Your task to perform on an android device: Show me recent news Image 0: 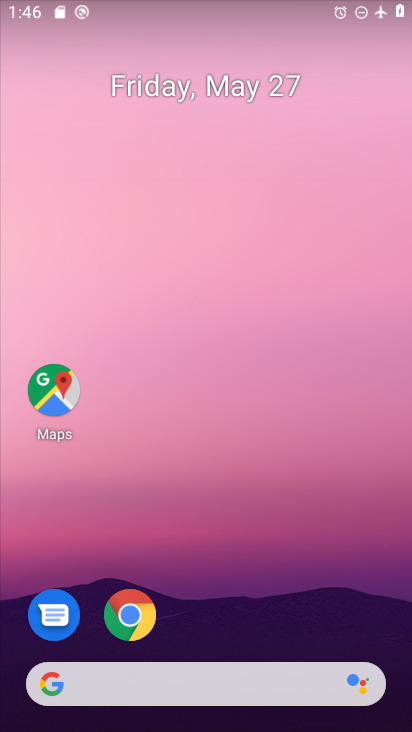
Step 0: drag from (333, 597) to (312, 49)
Your task to perform on an android device: Show me recent news Image 1: 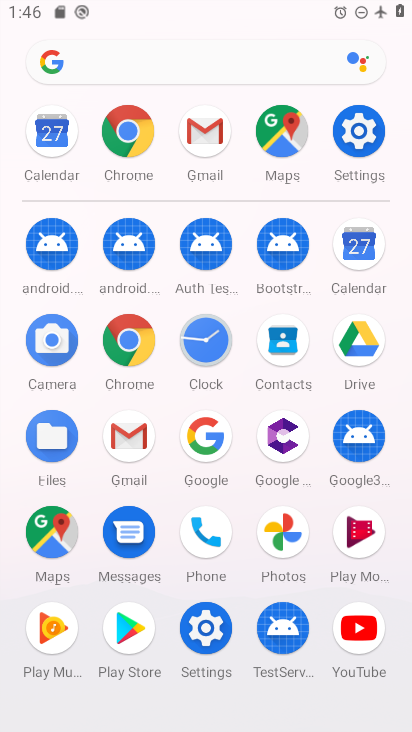
Step 1: click (125, 350)
Your task to perform on an android device: Show me recent news Image 2: 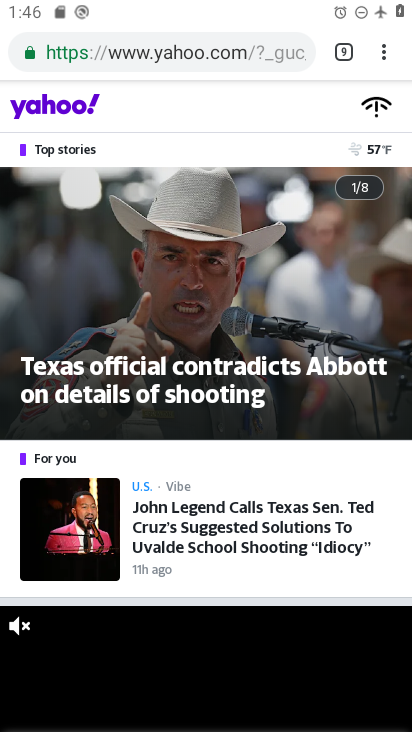
Step 2: click (255, 50)
Your task to perform on an android device: Show me recent news Image 3: 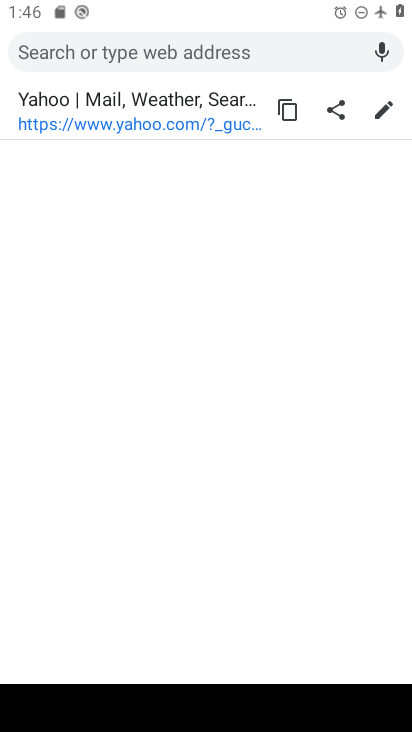
Step 3: type "recent news"
Your task to perform on an android device: Show me recent news Image 4: 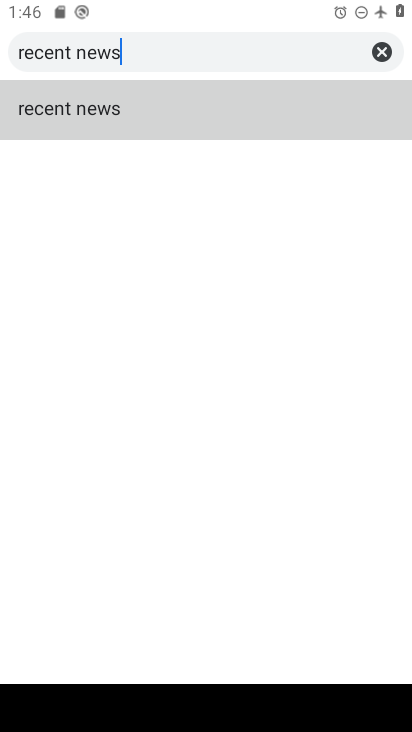
Step 4: click (166, 112)
Your task to perform on an android device: Show me recent news Image 5: 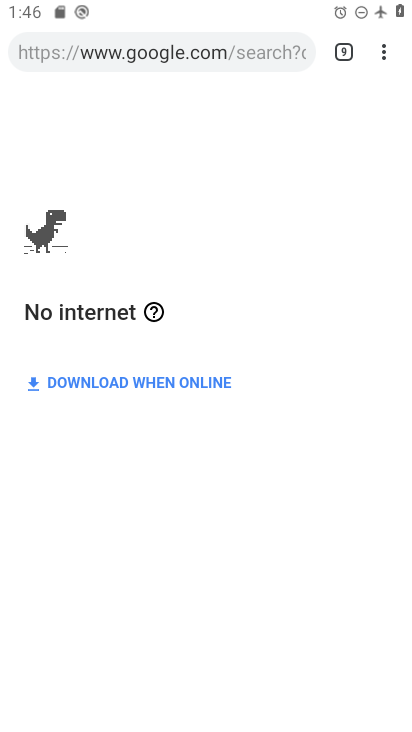
Step 5: task complete